Your task to perform on an android device: open app "ColorNote Notepad Notes" Image 0: 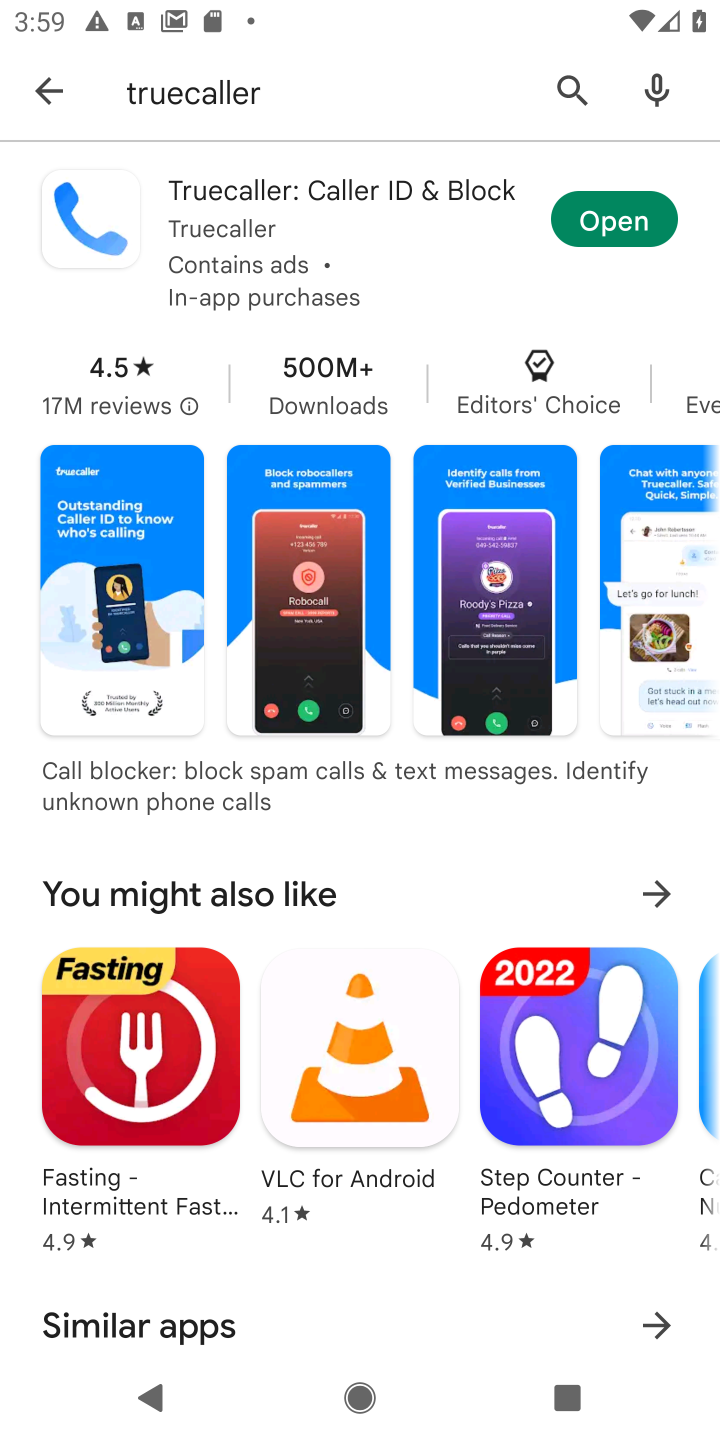
Step 0: click (696, 480)
Your task to perform on an android device: open app "ColorNote Notepad Notes" Image 1: 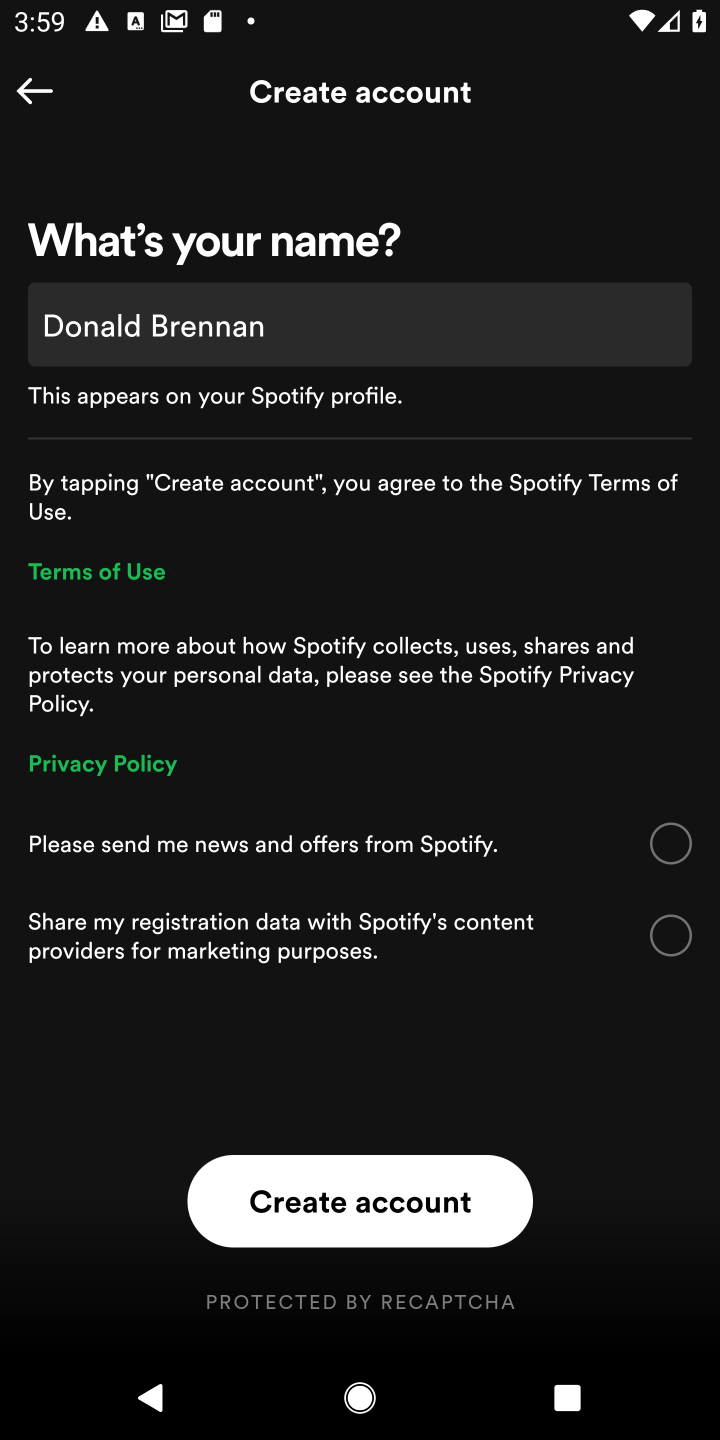
Step 1: press home button
Your task to perform on an android device: open app "ColorNote Notepad Notes" Image 2: 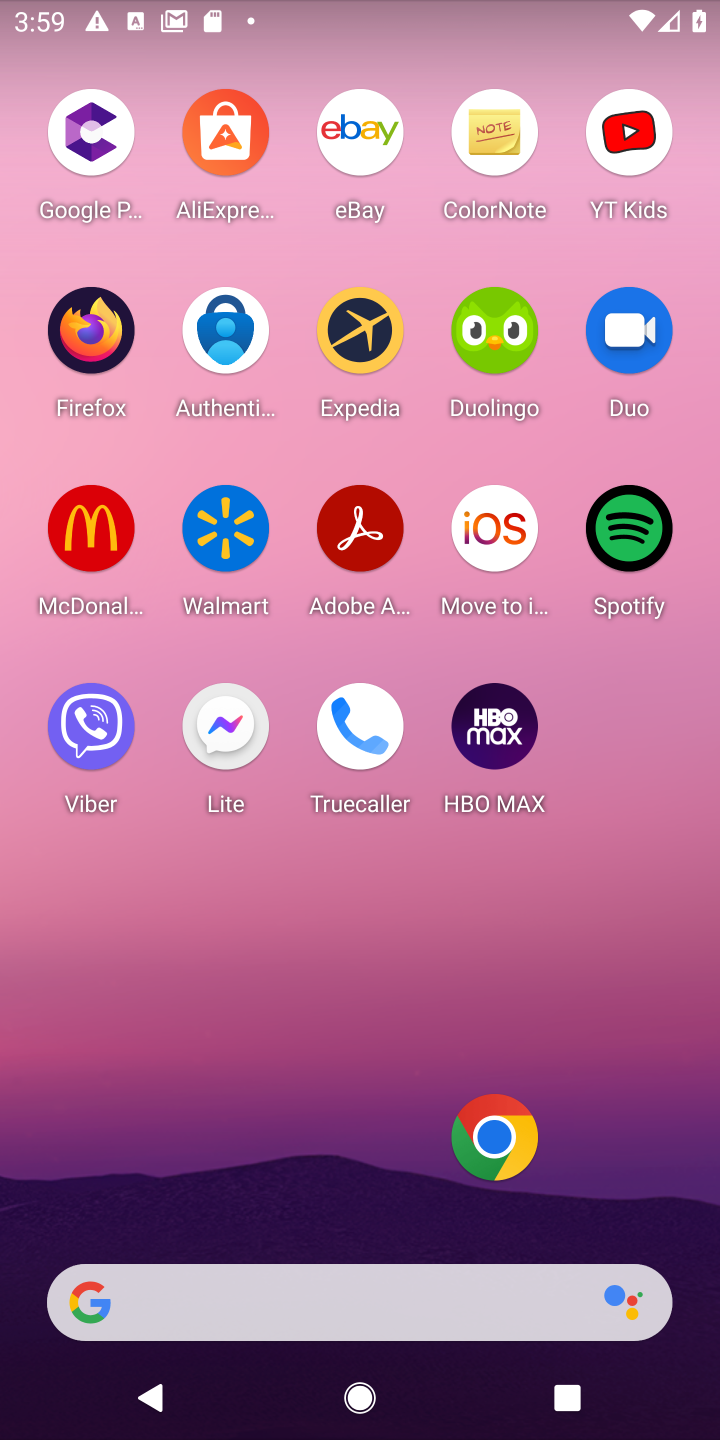
Step 2: drag from (315, 1138) to (430, 328)
Your task to perform on an android device: open app "ColorNote Notepad Notes" Image 3: 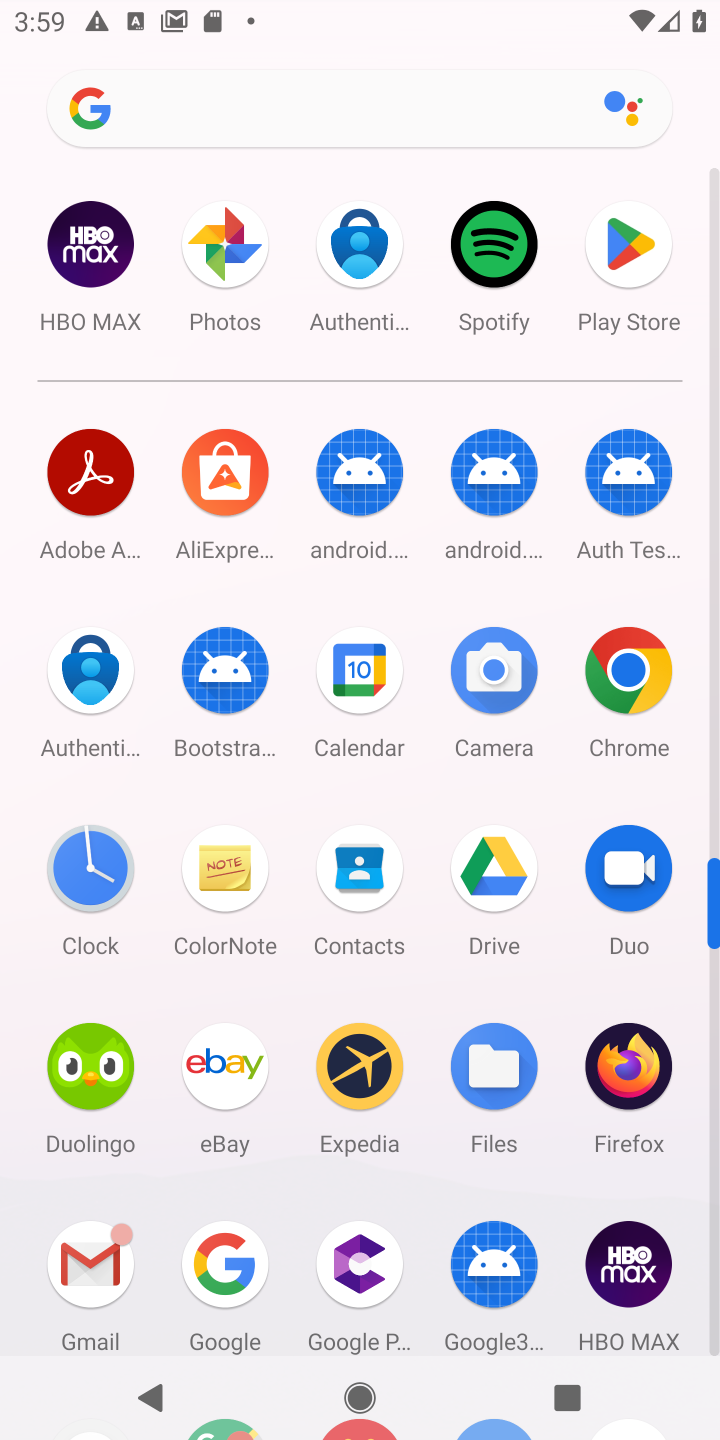
Step 3: click (618, 269)
Your task to perform on an android device: open app "ColorNote Notepad Notes" Image 4: 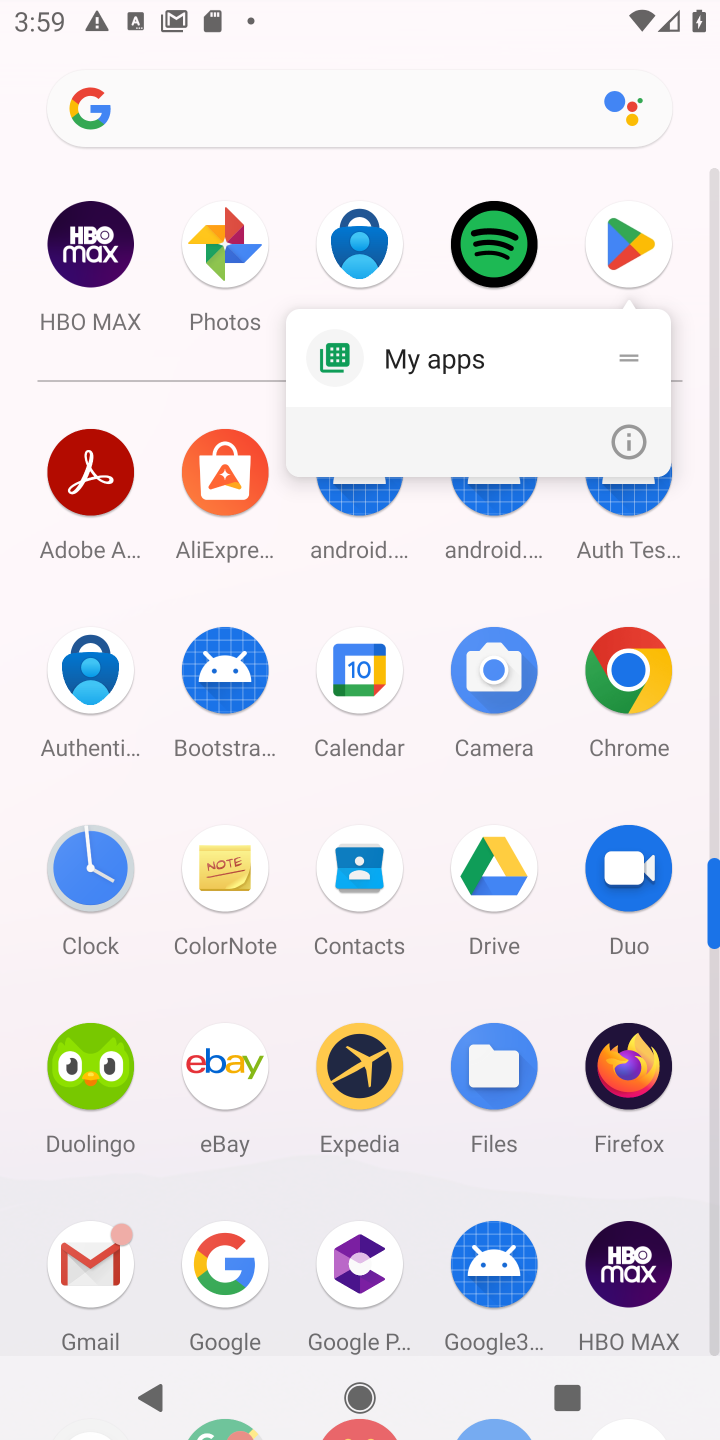
Step 4: click (636, 277)
Your task to perform on an android device: open app "ColorNote Notepad Notes" Image 5: 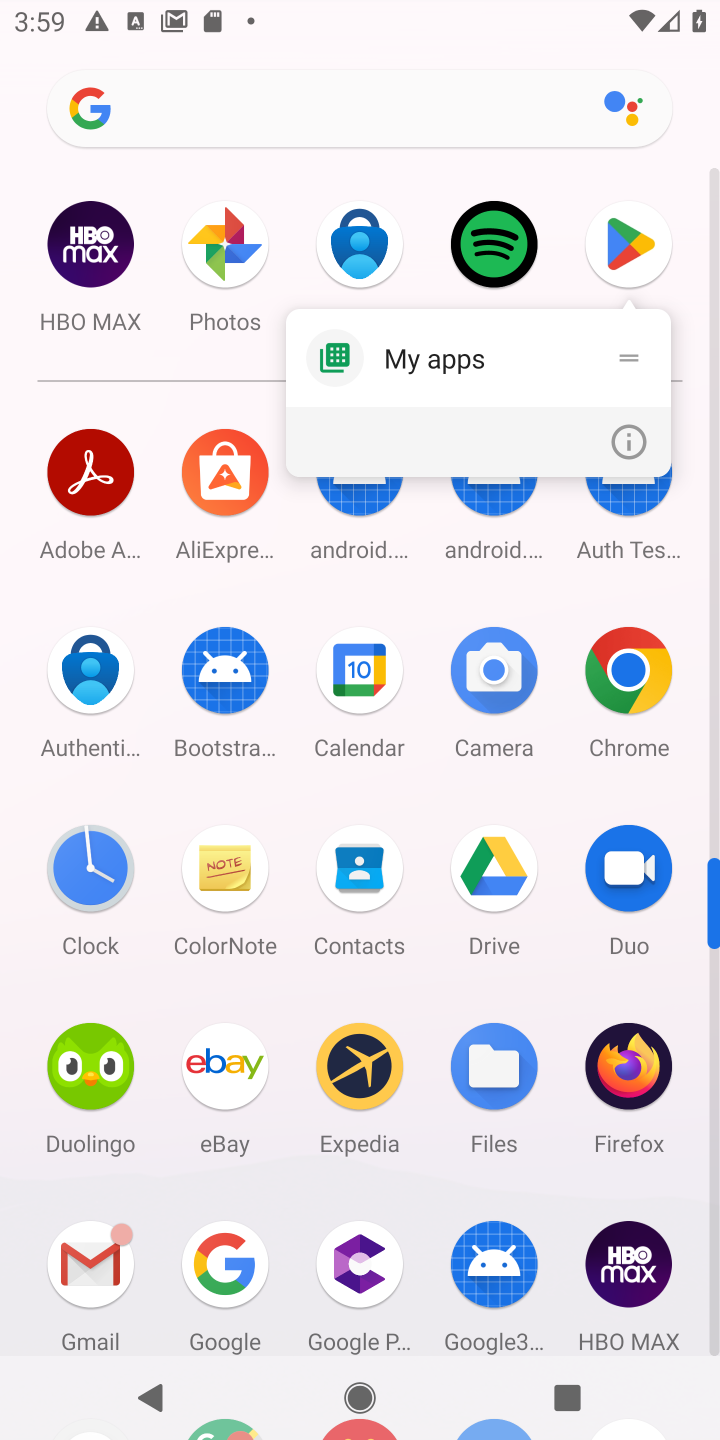
Step 5: click (646, 261)
Your task to perform on an android device: open app "ColorNote Notepad Notes" Image 6: 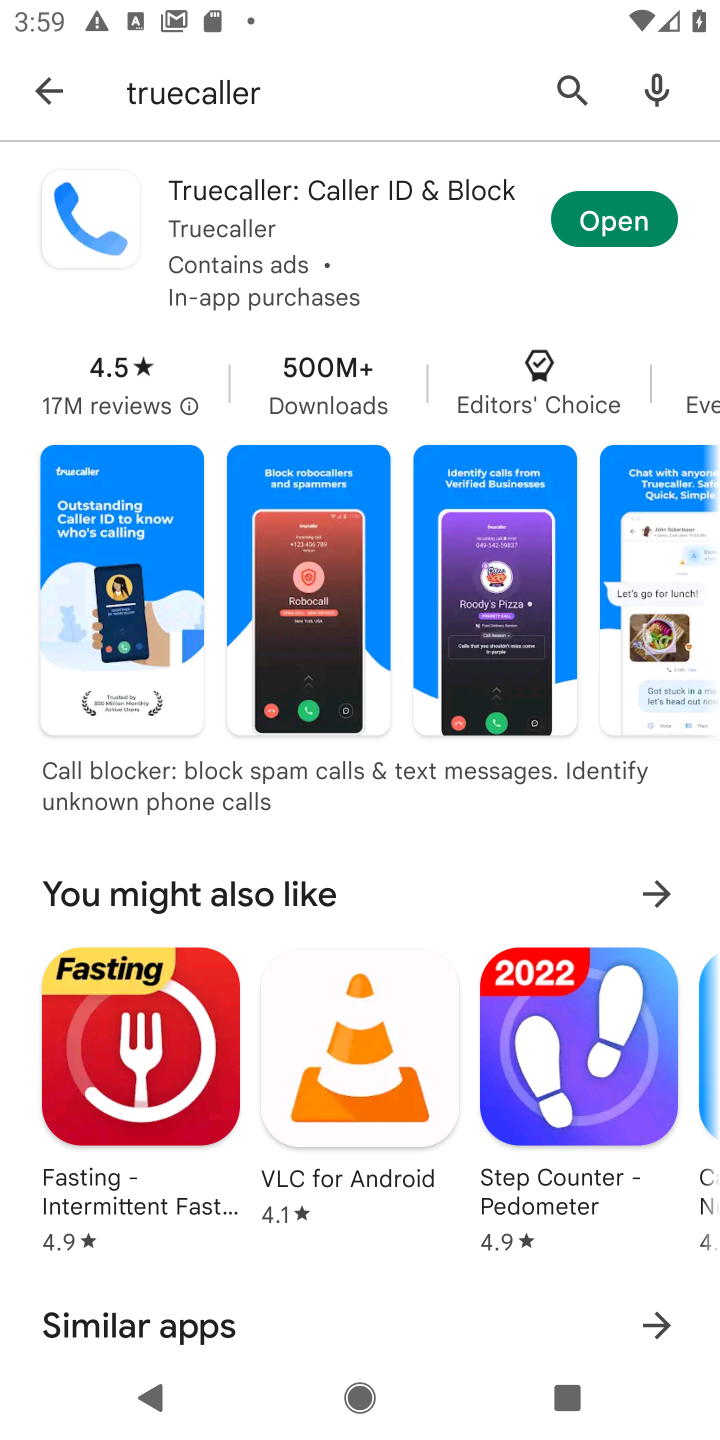
Step 6: click (312, 81)
Your task to perform on an android device: open app "ColorNote Notepad Notes" Image 7: 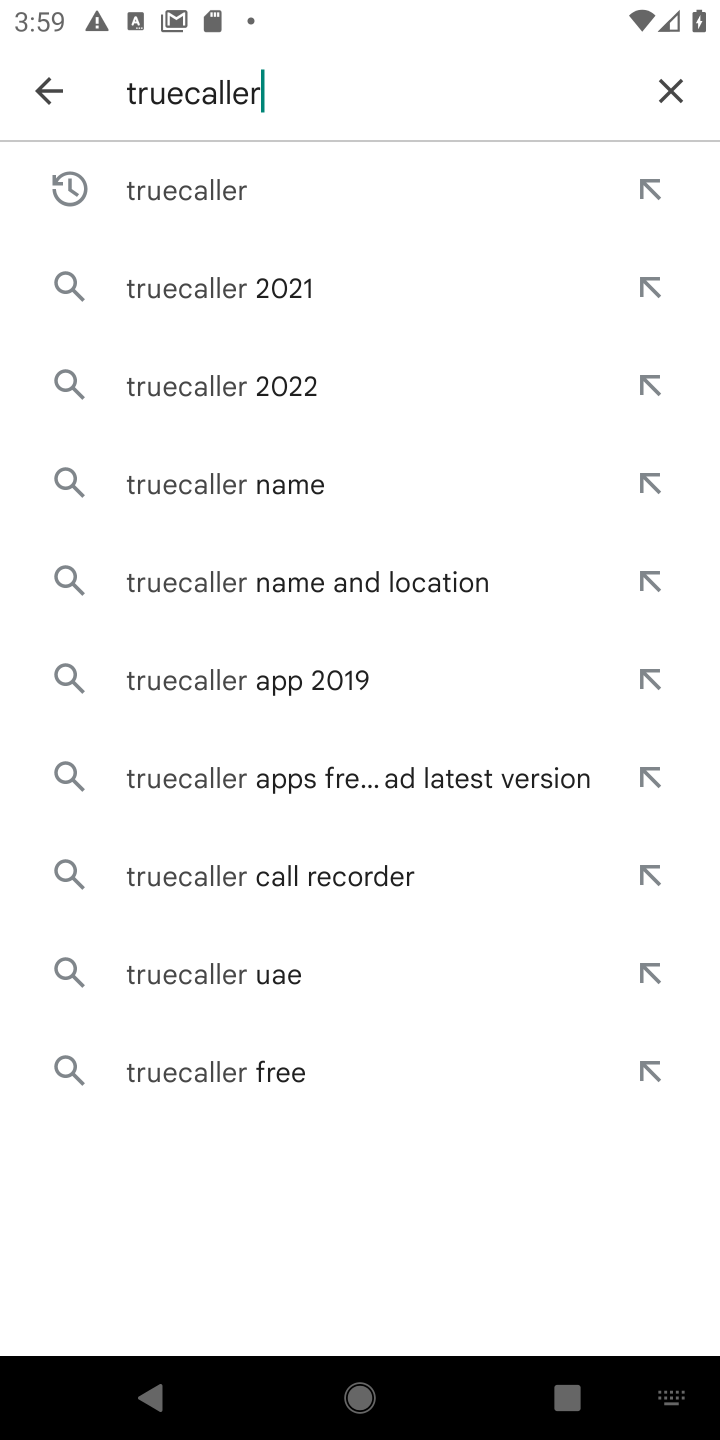
Step 7: click (669, 72)
Your task to perform on an android device: open app "ColorNote Notepad Notes" Image 8: 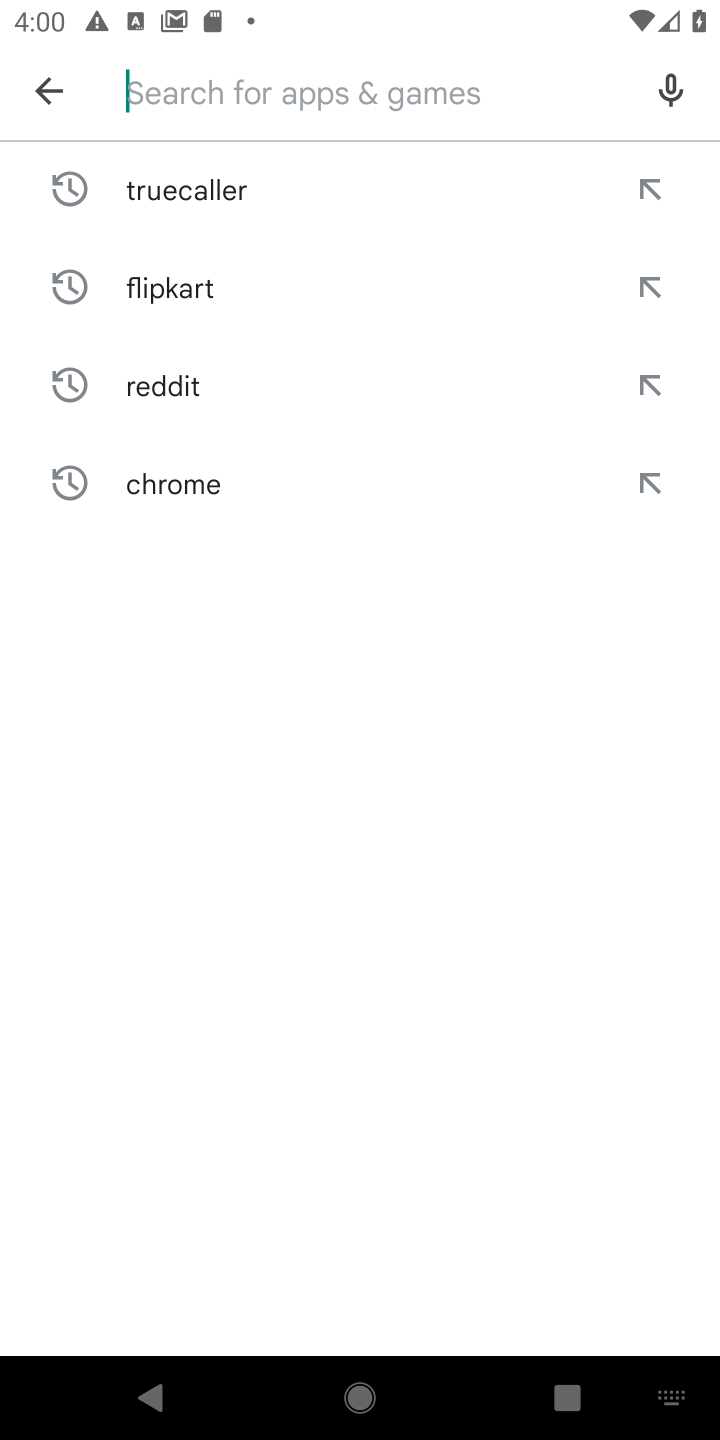
Step 8: type "colornote notepad notes"
Your task to perform on an android device: open app "ColorNote Notepad Notes" Image 9: 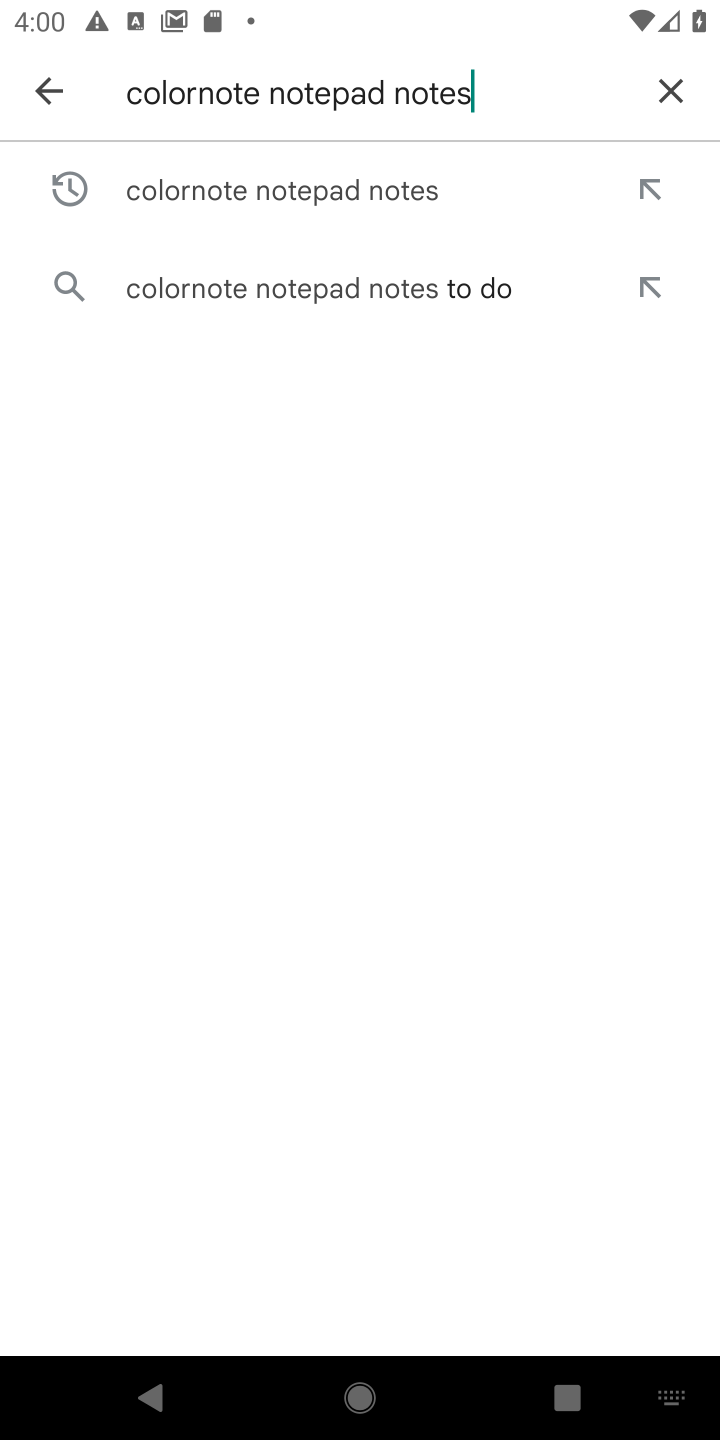
Step 9: click (331, 191)
Your task to perform on an android device: open app "ColorNote Notepad Notes" Image 10: 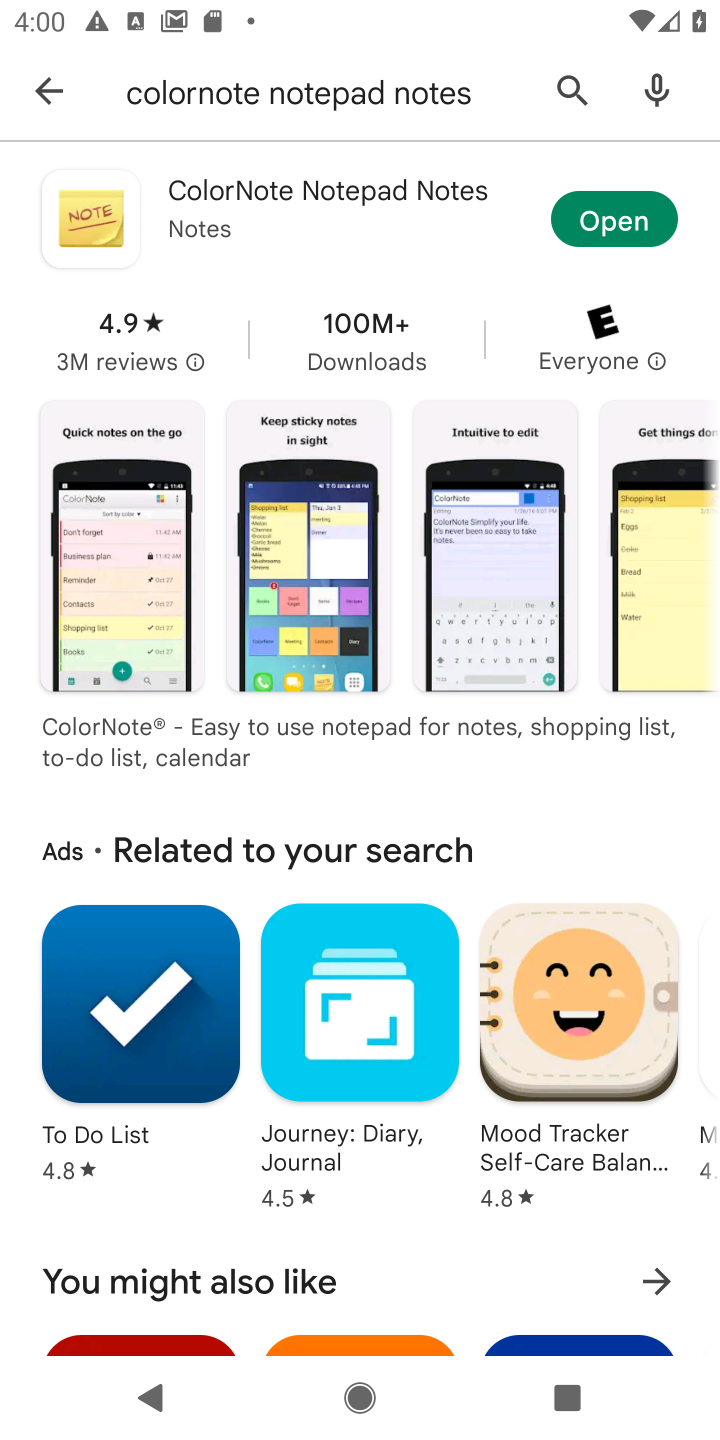
Step 10: click (595, 214)
Your task to perform on an android device: open app "ColorNote Notepad Notes" Image 11: 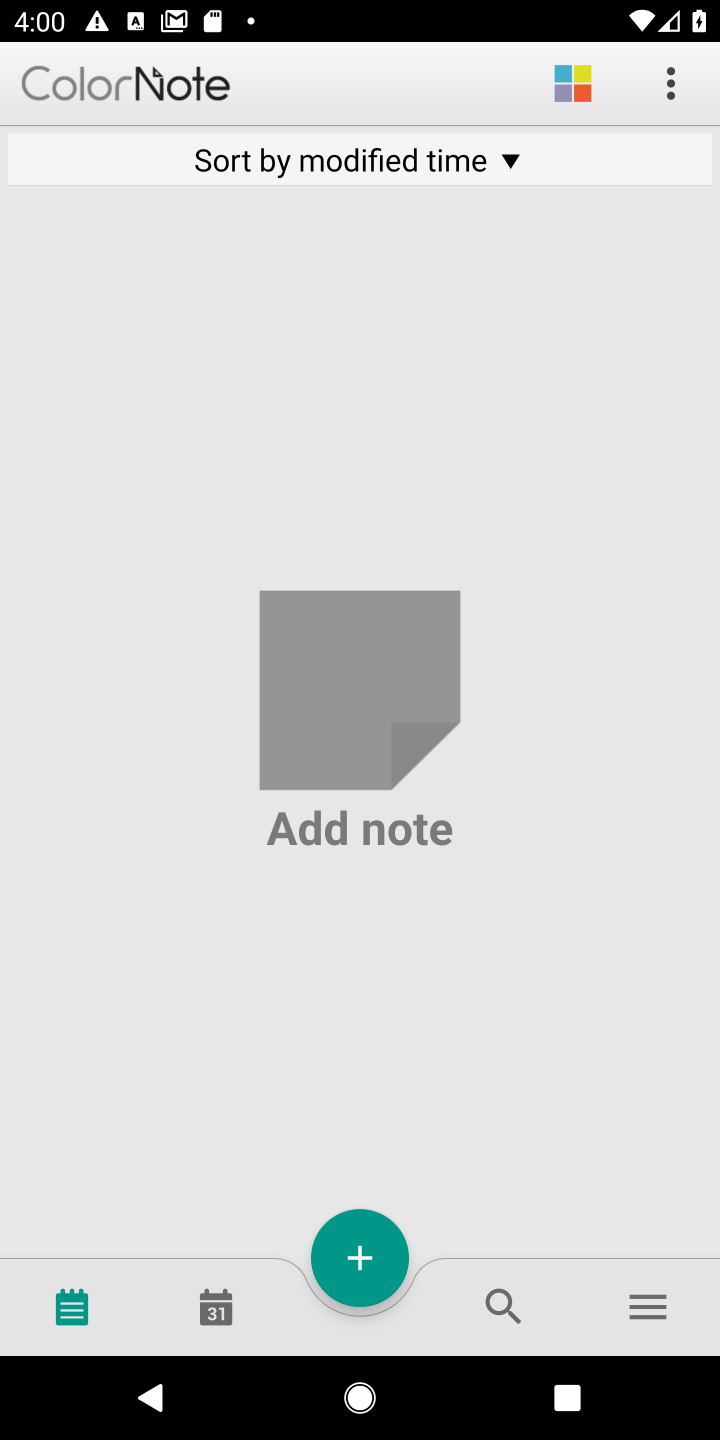
Step 11: task complete